Your task to perform on an android device: check the backup settings in the google photos Image 0: 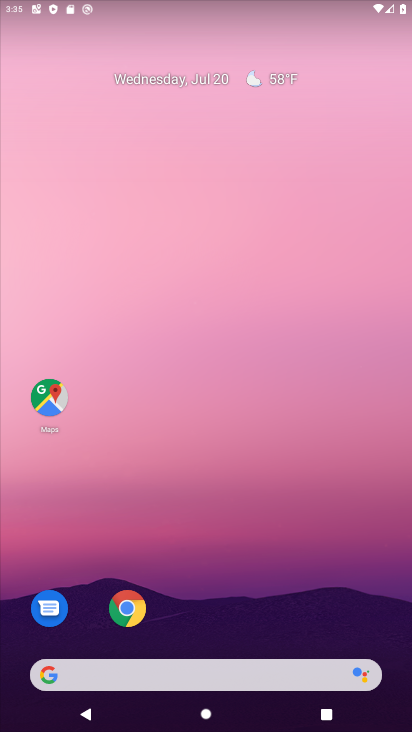
Step 0: drag from (223, 616) to (242, 170)
Your task to perform on an android device: check the backup settings in the google photos Image 1: 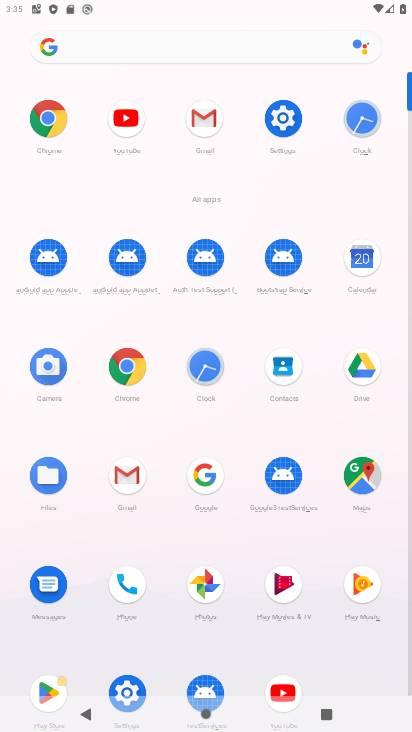
Step 1: click (203, 572)
Your task to perform on an android device: check the backup settings in the google photos Image 2: 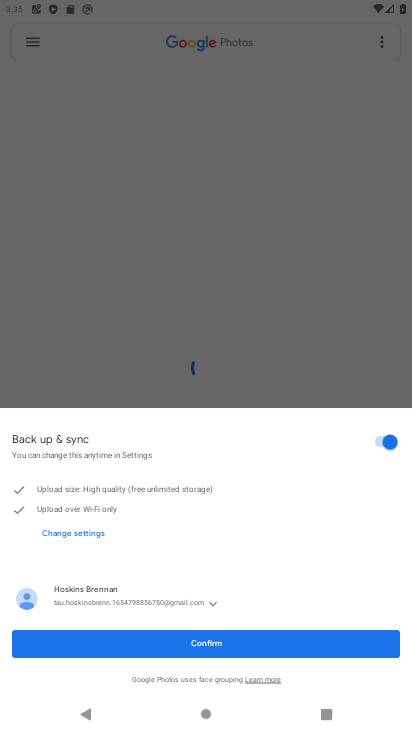
Step 2: task complete